Your task to perform on an android device: Open calendar and show me the fourth week of next month Image 0: 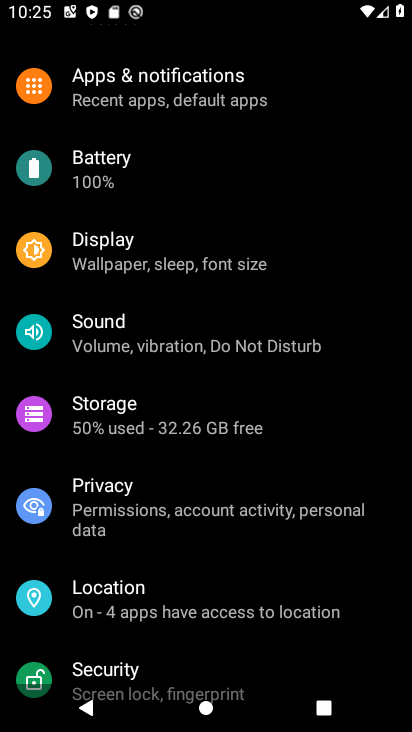
Step 0: press home button
Your task to perform on an android device: Open calendar and show me the fourth week of next month Image 1: 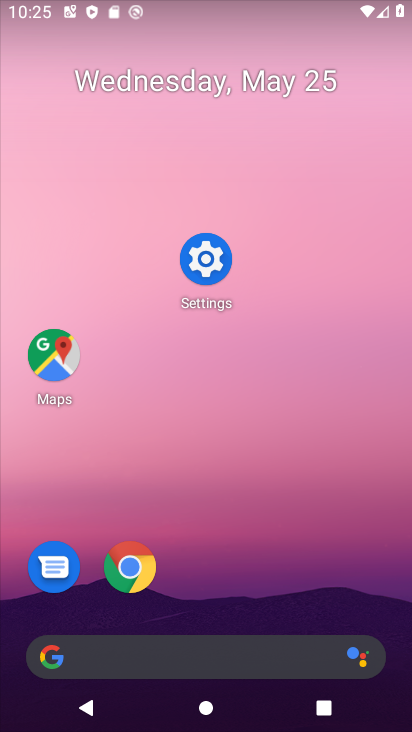
Step 1: drag from (275, 563) to (294, 104)
Your task to perform on an android device: Open calendar and show me the fourth week of next month Image 2: 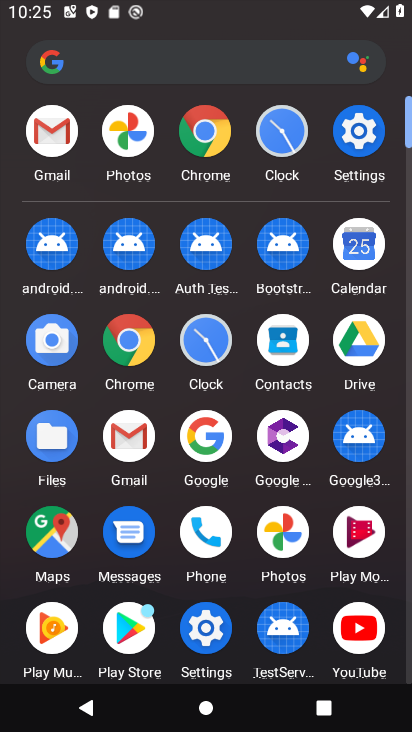
Step 2: click (360, 266)
Your task to perform on an android device: Open calendar and show me the fourth week of next month Image 3: 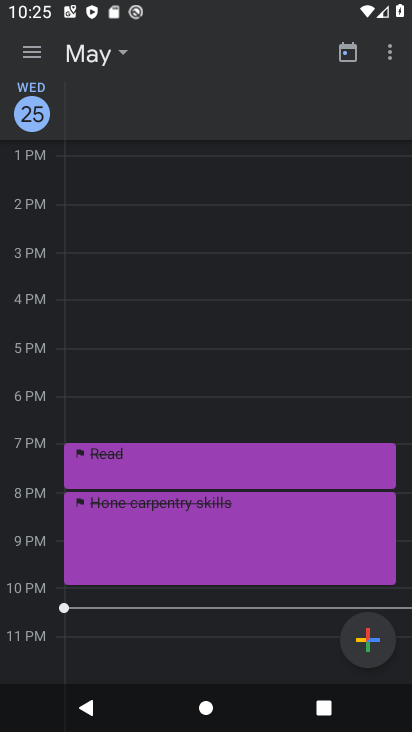
Step 3: task complete